Your task to perform on an android device: change the clock display to analog Image 0: 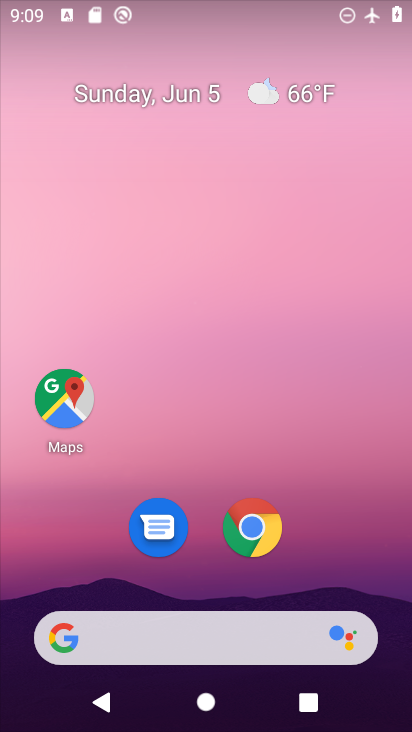
Step 0: drag from (206, 558) to (199, 147)
Your task to perform on an android device: change the clock display to analog Image 1: 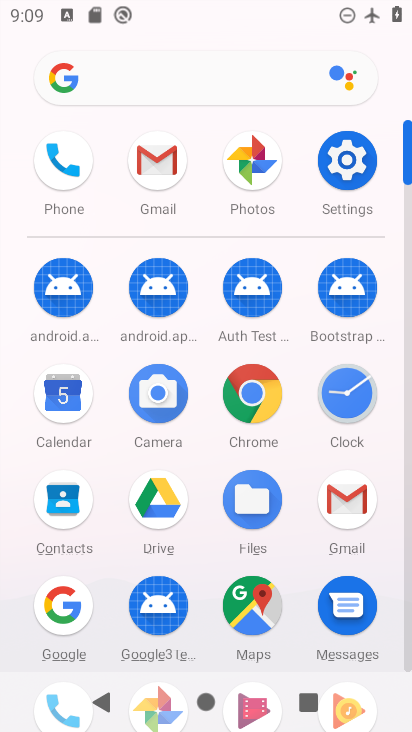
Step 1: click (377, 391)
Your task to perform on an android device: change the clock display to analog Image 2: 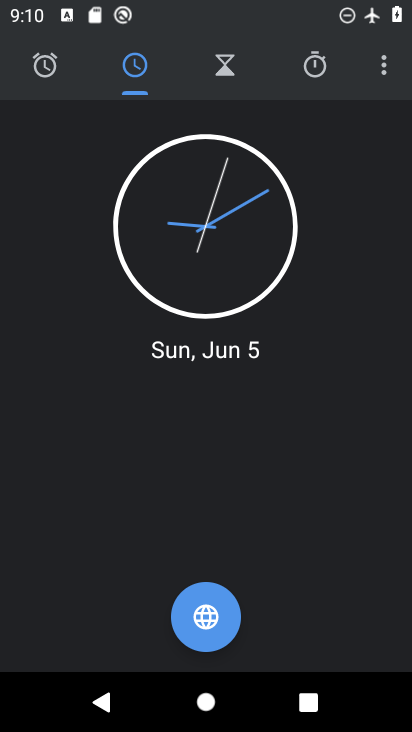
Step 2: click (391, 62)
Your task to perform on an android device: change the clock display to analog Image 3: 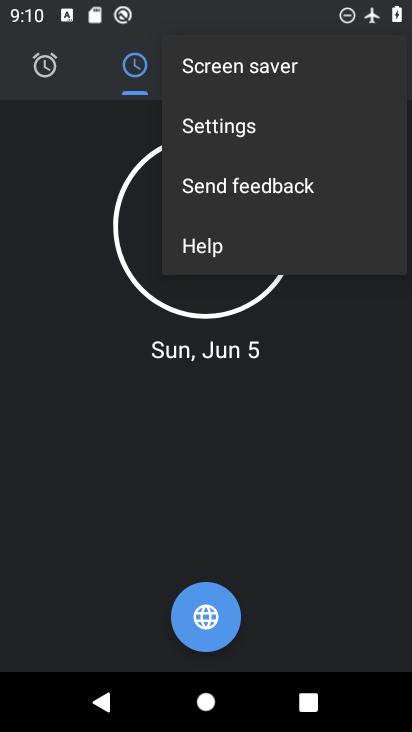
Step 3: click (318, 110)
Your task to perform on an android device: change the clock display to analog Image 4: 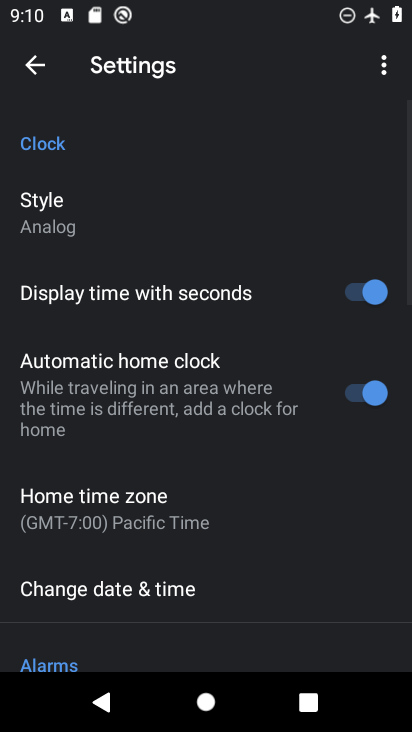
Step 4: click (108, 221)
Your task to perform on an android device: change the clock display to analog Image 5: 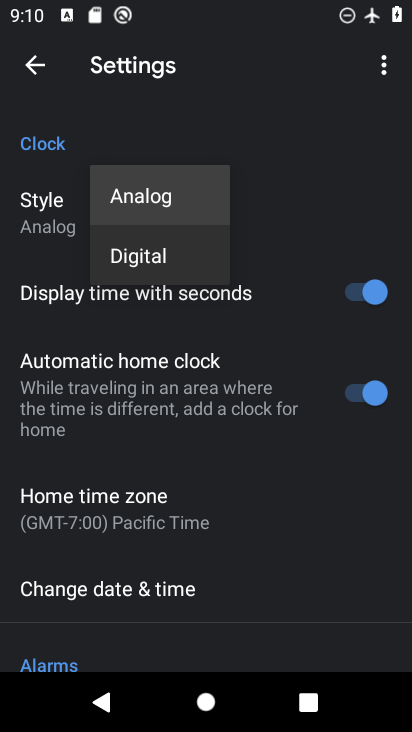
Step 5: task complete